Your task to perform on an android device: Open the Play Movies app and select the watchlist tab. Image 0: 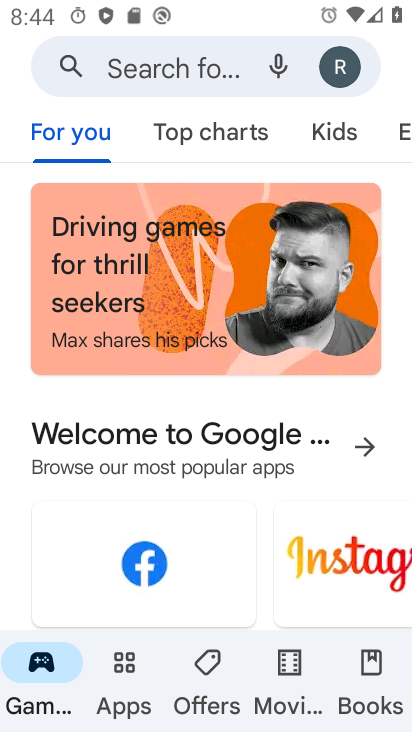
Step 0: press back button
Your task to perform on an android device: Open the Play Movies app and select the watchlist tab. Image 1: 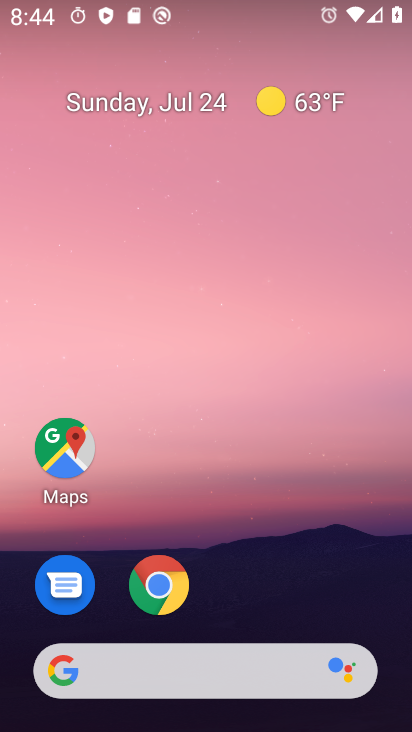
Step 1: drag from (232, 617) to (362, 174)
Your task to perform on an android device: Open the Play Movies app and select the watchlist tab. Image 2: 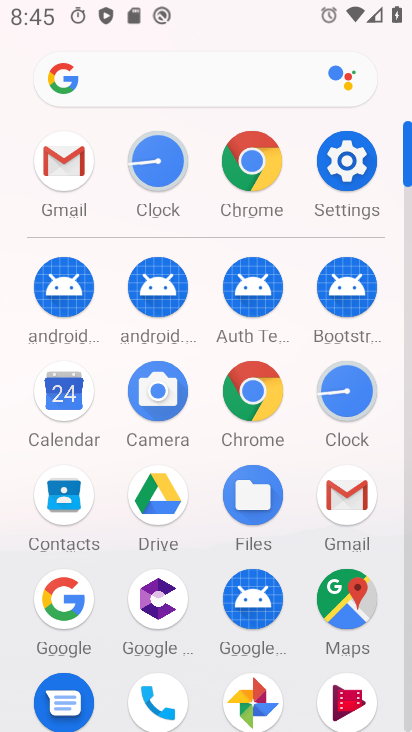
Step 2: drag from (311, 669) to (326, 436)
Your task to perform on an android device: Open the Play Movies app and select the watchlist tab. Image 3: 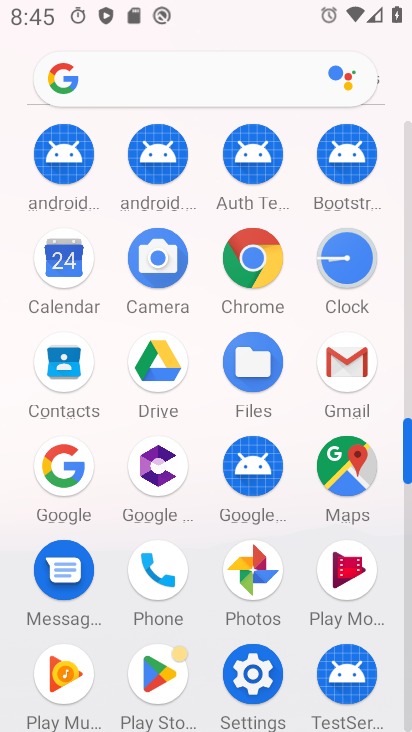
Step 3: click (357, 582)
Your task to perform on an android device: Open the Play Movies app and select the watchlist tab. Image 4: 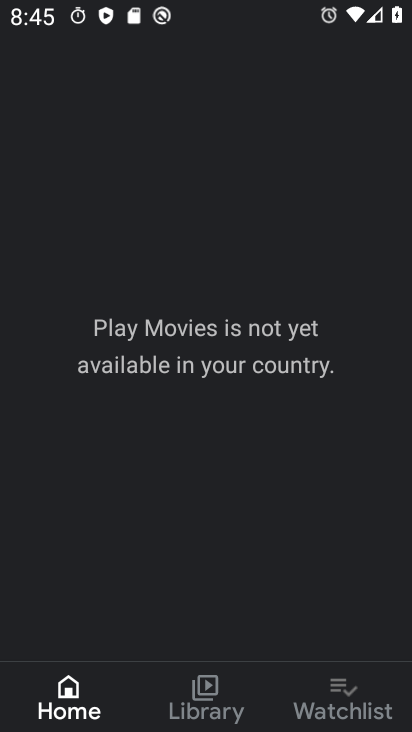
Step 4: click (339, 700)
Your task to perform on an android device: Open the Play Movies app and select the watchlist tab. Image 5: 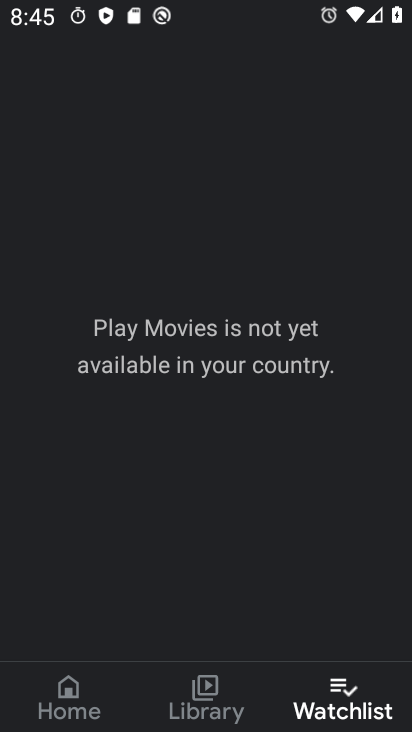
Step 5: task complete